Your task to perform on an android device: What's the weather going to be tomorrow? Image 0: 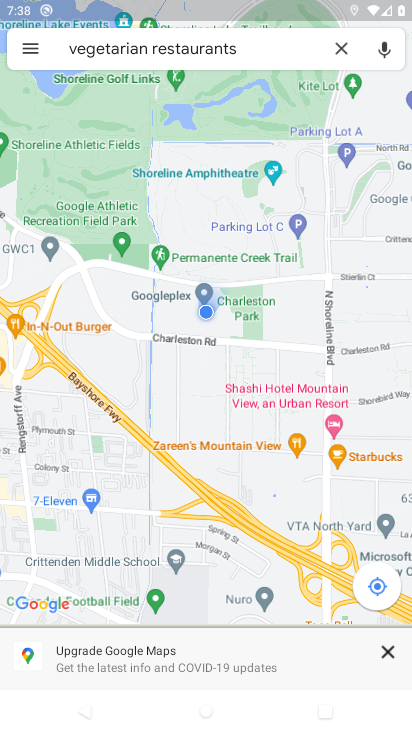
Step 0: press home button
Your task to perform on an android device: What's the weather going to be tomorrow? Image 1: 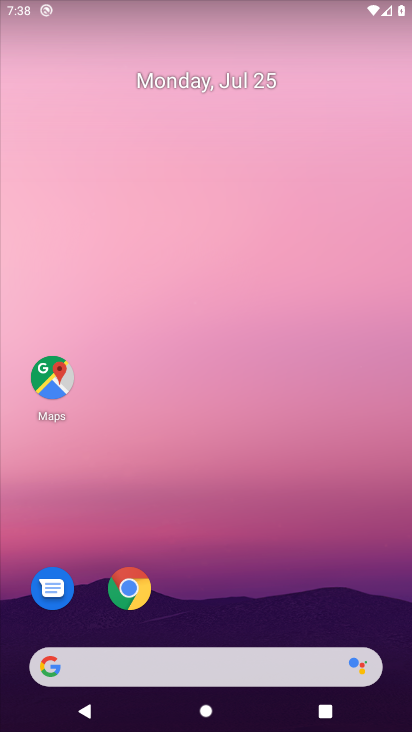
Step 1: drag from (185, 722) to (35, 729)
Your task to perform on an android device: What's the weather going to be tomorrow? Image 2: 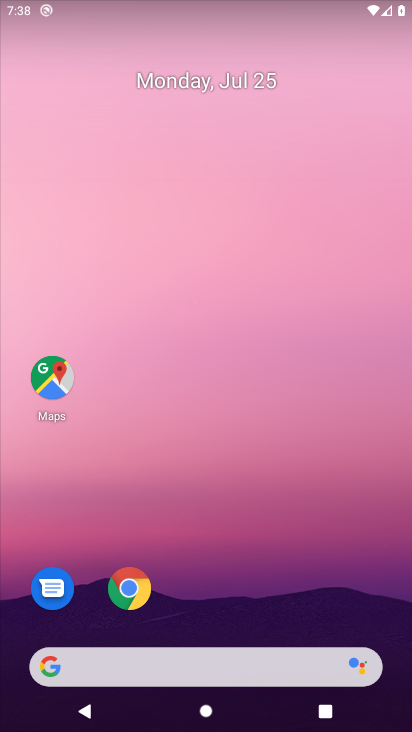
Step 2: click (250, 672)
Your task to perform on an android device: What's the weather going to be tomorrow? Image 3: 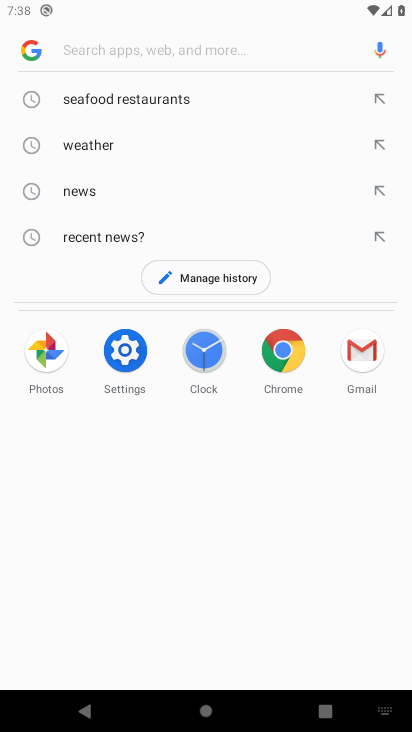
Step 3: type " What's the weather going to be tomorrow?"
Your task to perform on an android device: What's the weather going to be tomorrow? Image 4: 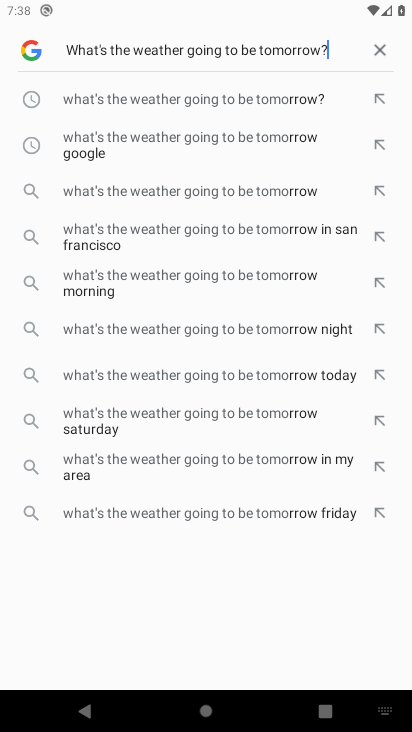
Step 4: press enter
Your task to perform on an android device: What's the weather going to be tomorrow? Image 5: 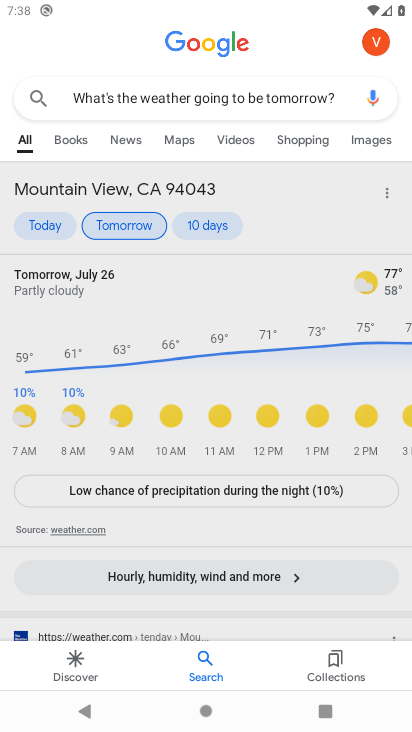
Step 5: task complete